Your task to perform on an android device: Find coffee shops on Maps Image 0: 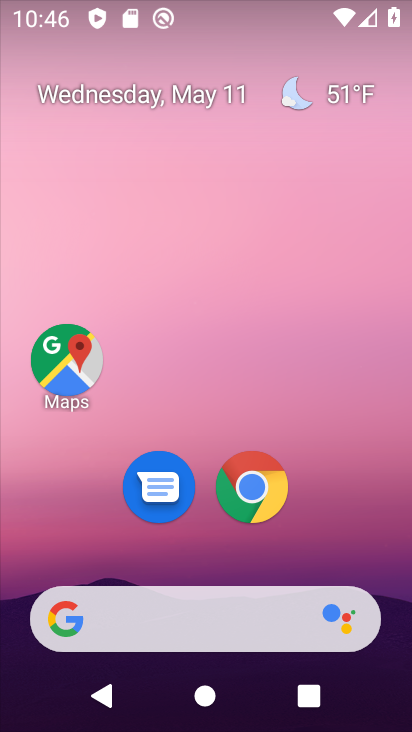
Step 0: click (394, 516)
Your task to perform on an android device: Find coffee shops on Maps Image 1: 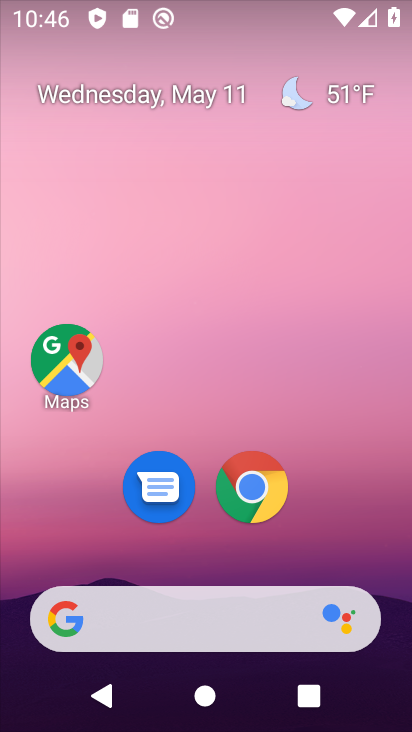
Step 1: click (63, 365)
Your task to perform on an android device: Find coffee shops on Maps Image 2: 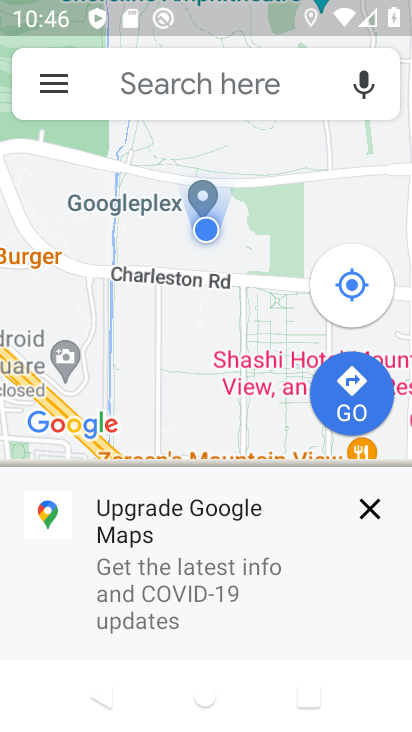
Step 2: click (194, 88)
Your task to perform on an android device: Find coffee shops on Maps Image 3: 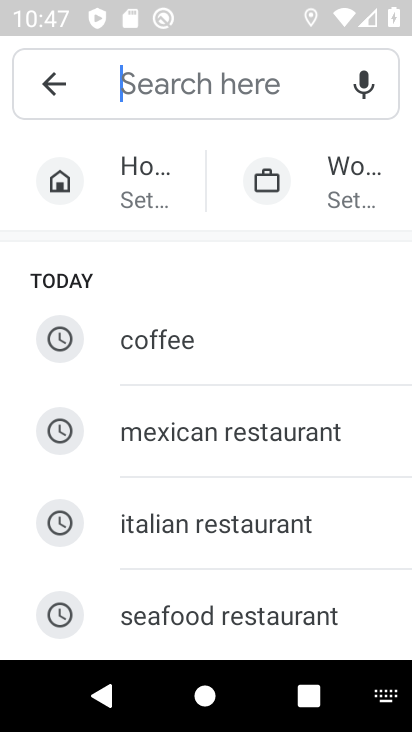
Step 3: click (365, 351)
Your task to perform on an android device: Find coffee shops on Maps Image 4: 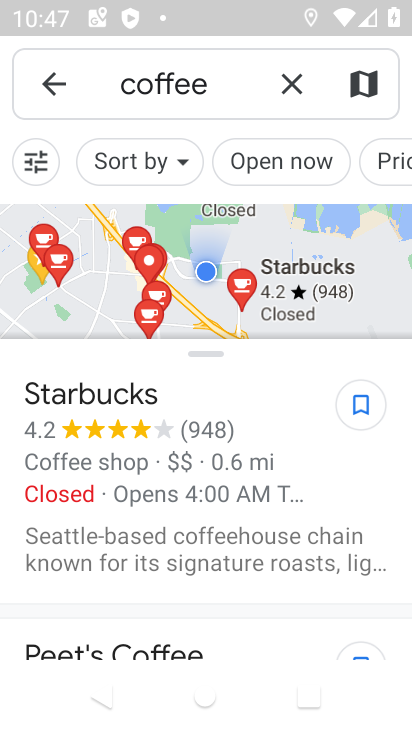
Step 4: task complete